Your task to perform on an android device: turn on data saver in the chrome app Image 0: 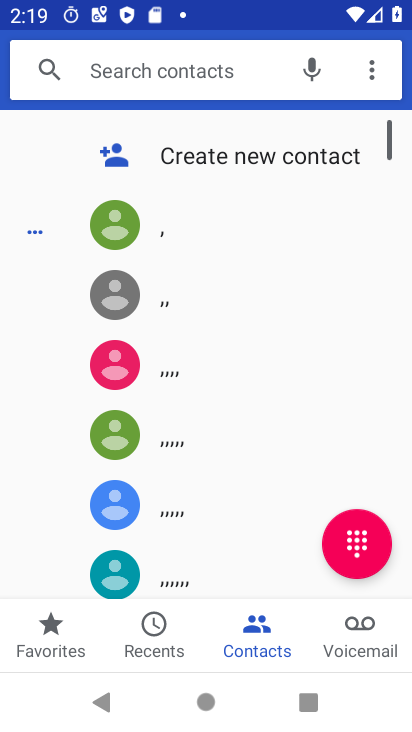
Step 0: press home button
Your task to perform on an android device: turn on data saver in the chrome app Image 1: 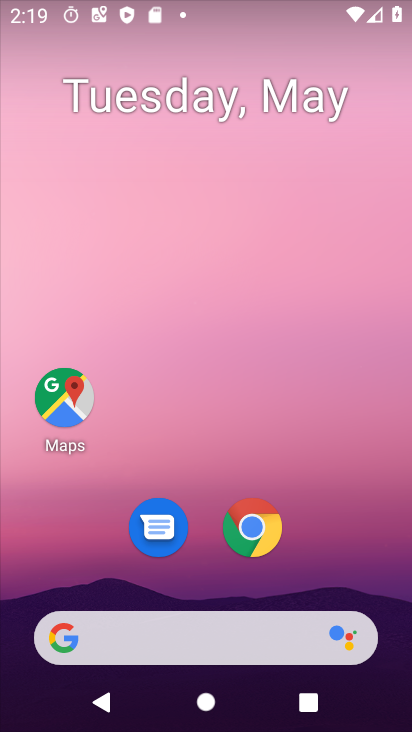
Step 1: drag from (257, 660) to (256, 161)
Your task to perform on an android device: turn on data saver in the chrome app Image 2: 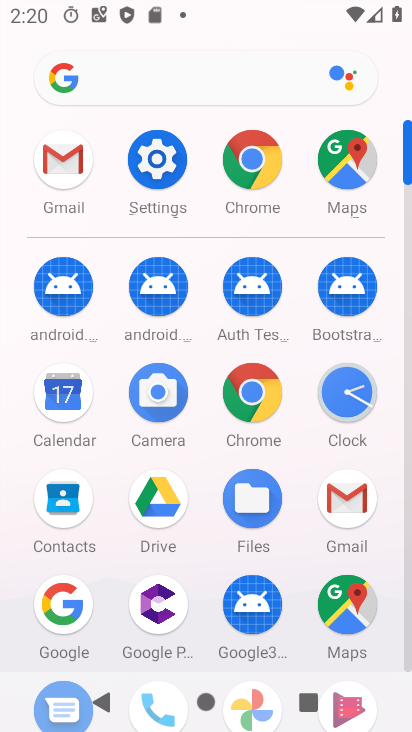
Step 2: click (249, 175)
Your task to perform on an android device: turn on data saver in the chrome app Image 3: 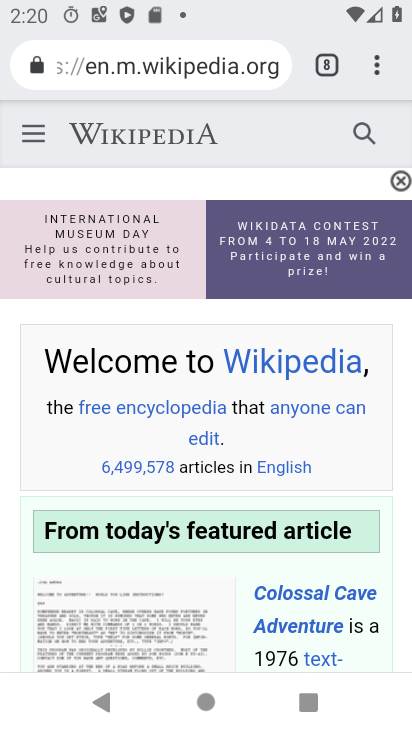
Step 3: click (367, 82)
Your task to perform on an android device: turn on data saver in the chrome app Image 4: 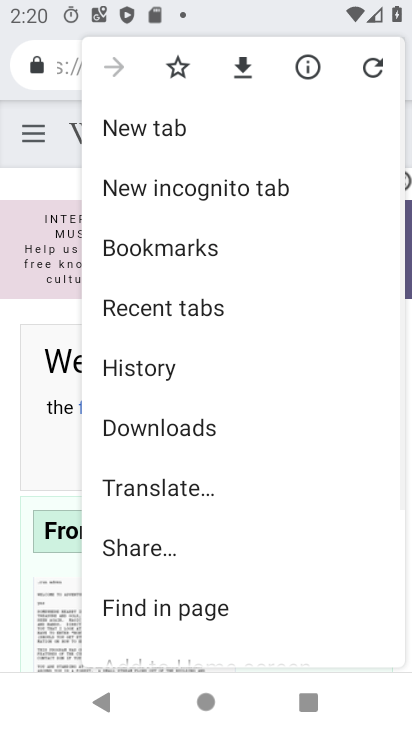
Step 4: drag from (260, 538) to (267, 369)
Your task to perform on an android device: turn on data saver in the chrome app Image 5: 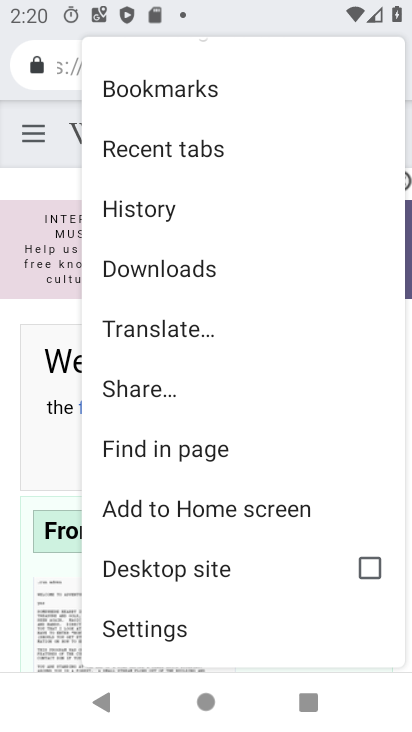
Step 5: click (199, 621)
Your task to perform on an android device: turn on data saver in the chrome app Image 6: 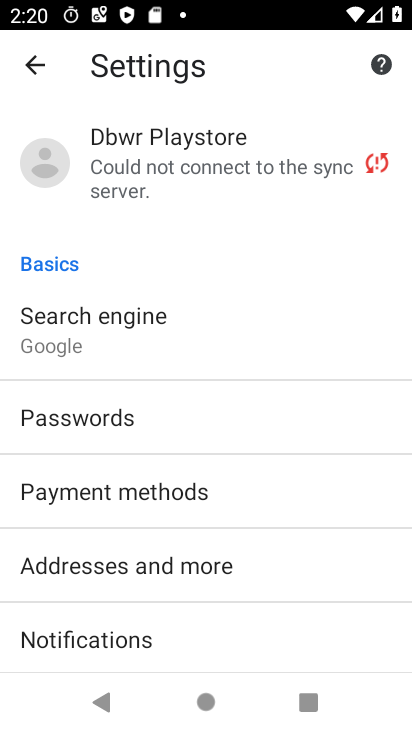
Step 6: drag from (204, 619) to (213, 394)
Your task to perform on an android device: turn on data saver in the chrome app Image 7: 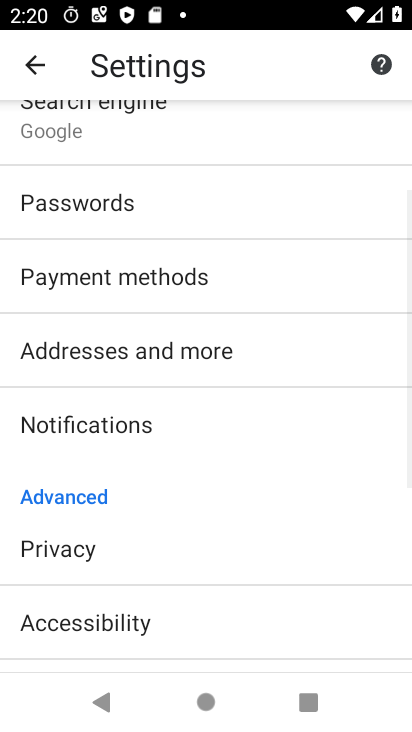
Step 7: drag from (166, 592) to (191, 387)
Your task to perform on an android device: turn on data saver in the chrome app Image 8: 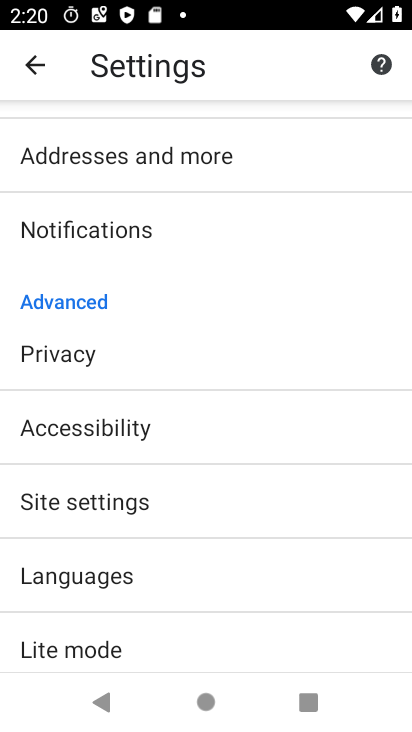
Step 8: drag from (150, 640) to (156, 488)
Your task to perform on an android device: turn on data saver in the chrome app Image 9: 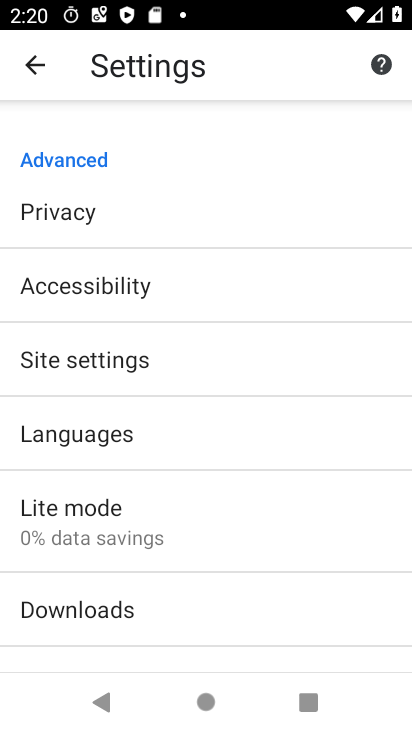
Step 9: click (111, 526)
Your task to perform on an android device: turn on data saver in the chrome app Image 10: 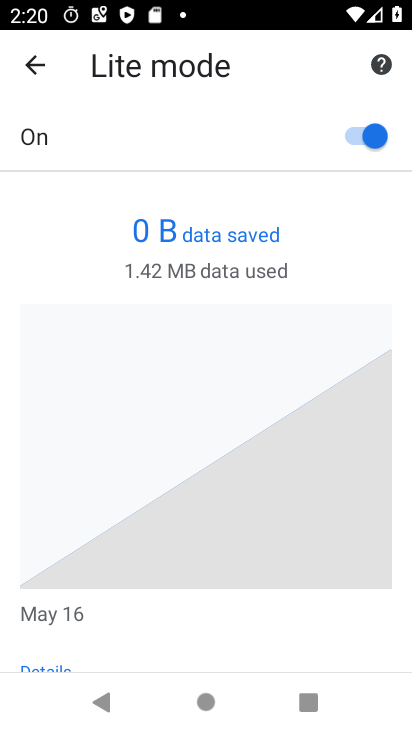
Step 10: task complete